Your task to perform on an android device: all mails in gmail Image 0: 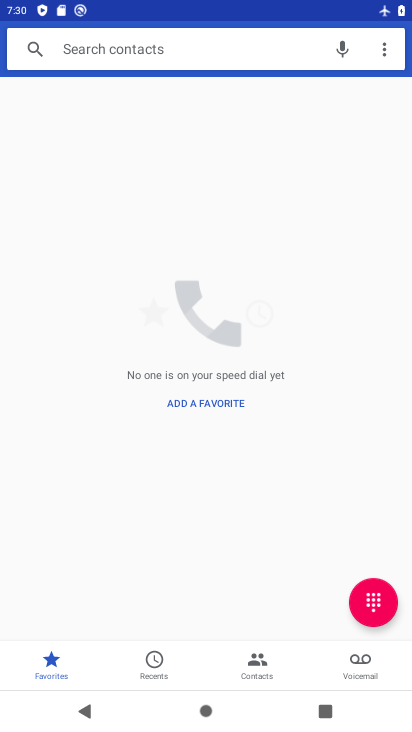
Step 0: press home button
Your task to perform on an android device: all mails in gmail Image 1: 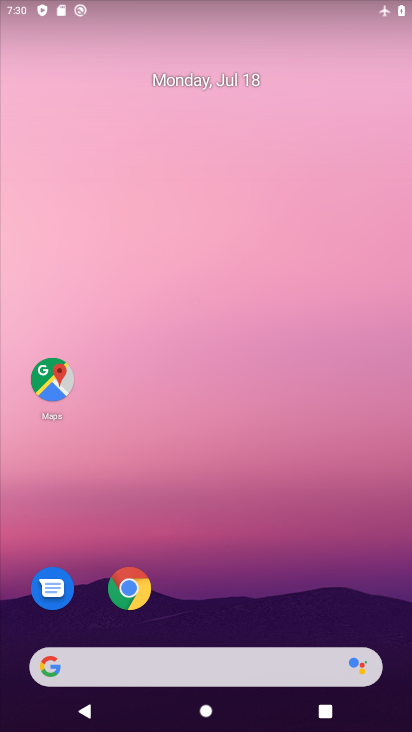
Step 1: drag from (296, 635) to (319, 31)
Your task to perform on an android device: all mails in gmail Image 2: 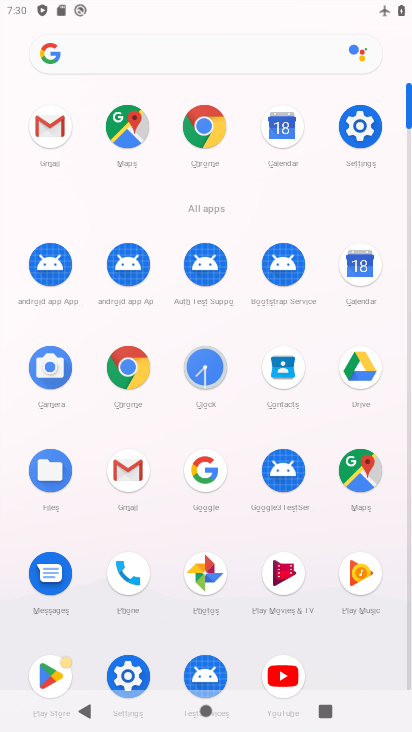
Step 2: click (128, 477)
Your task to perform on an android device: all mails in gmail Image 3: 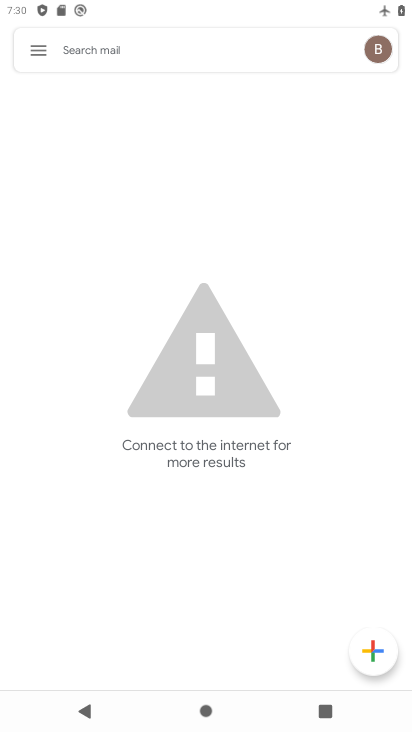
Step 3: click (30, 41)
Your task to perform on an android device: all mails in gmail Image 4: 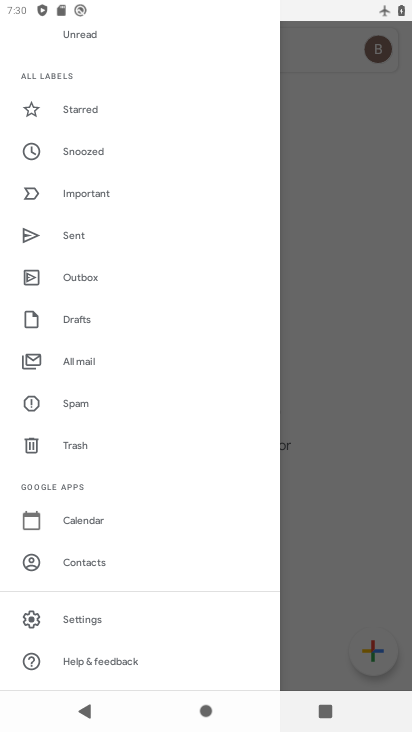
Step 4: click (53, 363)
Your task to perform on an android device: all mails in gmail Image 5: 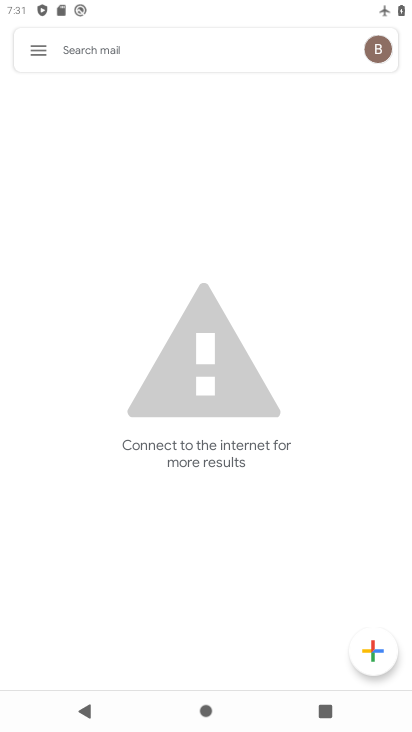
Step 5: task complete